Your task to perform on an android device: open a bookmark in the chrome app Image 0: 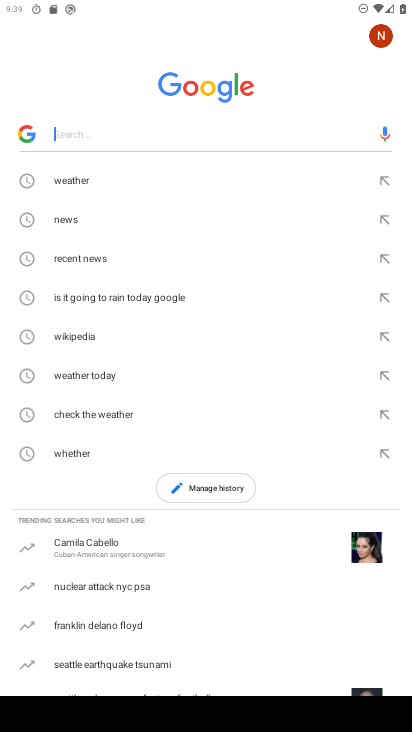
Step 0: press home button
Your task to perform on an android device: open a bookmark in the chrome app Image 1: 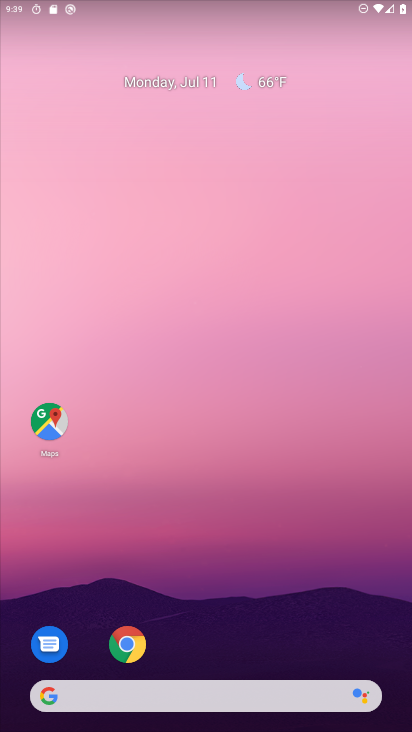
Step 1: click (127, 645)
Your task to perform on an android device: open a bookmark in the chrome app Image 2: 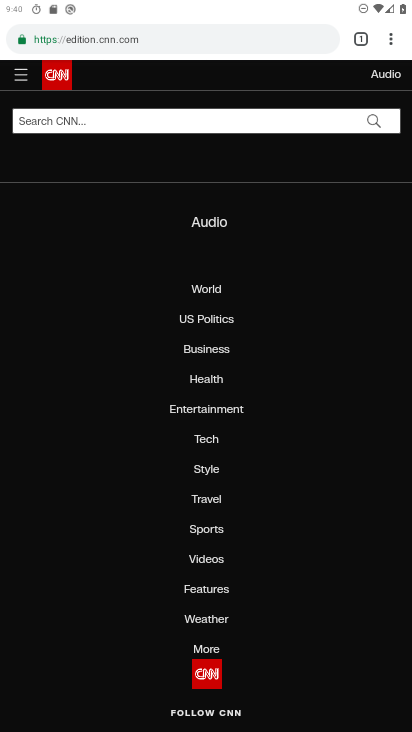
Step 2: drag from (394, 33) to (263, 194)
Your task to perform on an android device: open a bookmark in the chrome app Image 3: 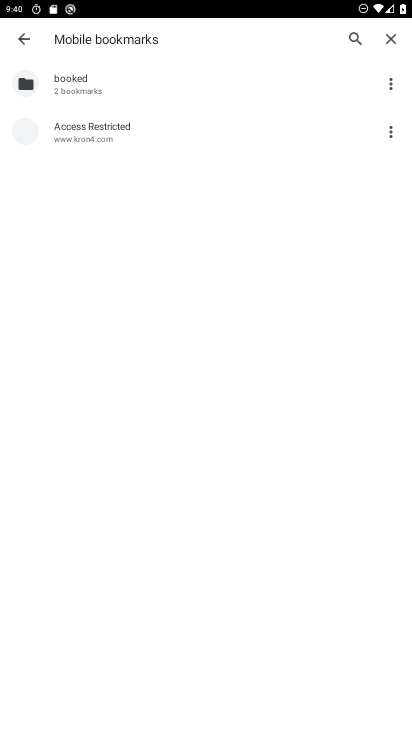
Step 3: click (108, 135)
Your task to perform on an android device: open a bookmark in the chrome app Image 4: 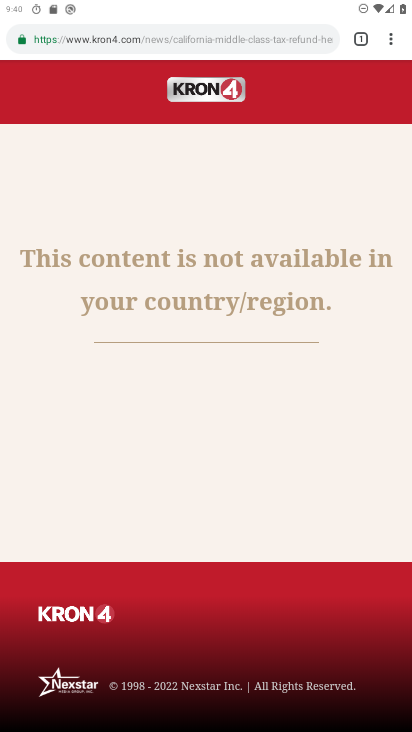
Step 4: task complete